Your task to perform on an android device: Go to Maps Image 0: 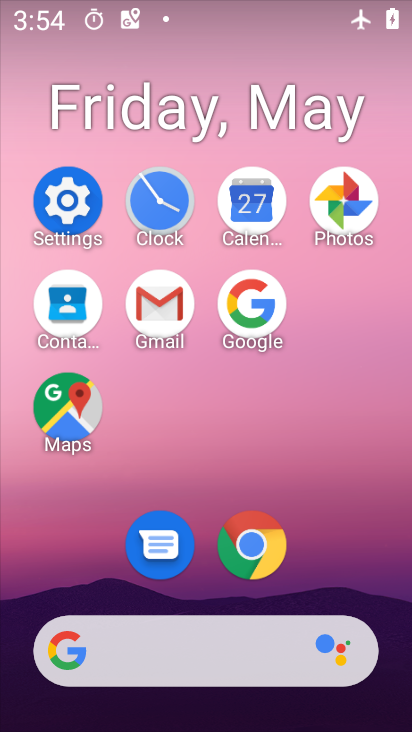
Step 0: click (68, 433)
Your task to perform on an android device: Go to Maps Image 1: 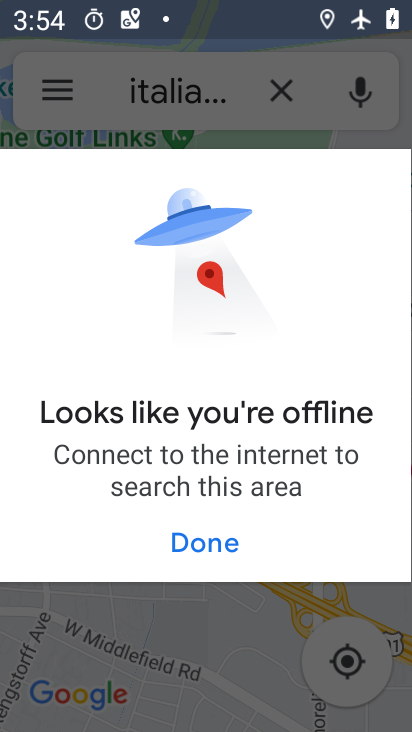
Step 1: task complete